Your task to perform on an android device: change text size in settings app Image 0: 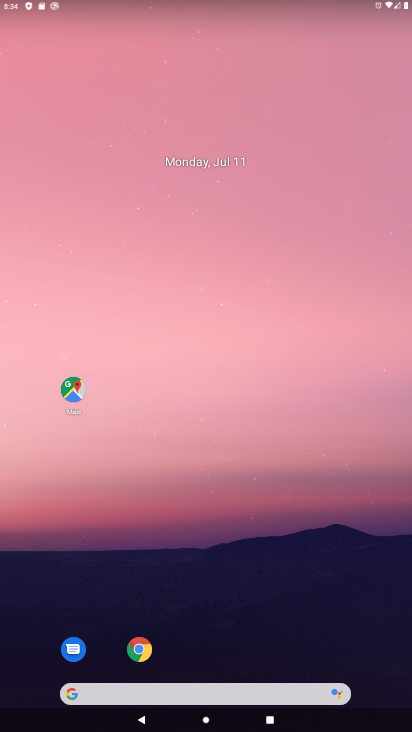
Step 0: drag from (211, 691) to (400, 71)
Your task to perform on an android device: change text size in settings app Image 1: 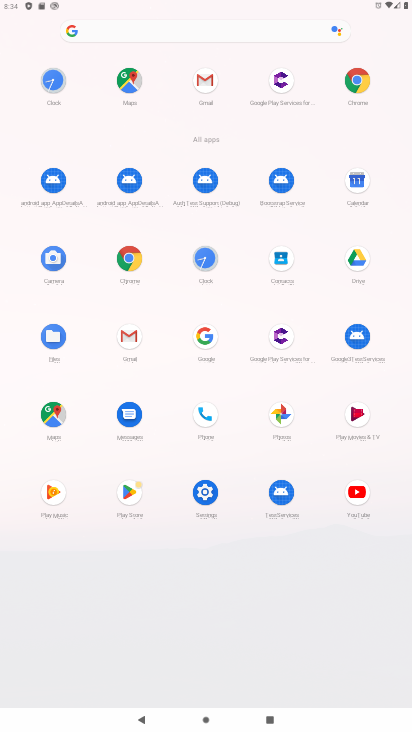
Step 1: click (205, 494)
Your task to perform on an android device: change text size in settings app Image 2: 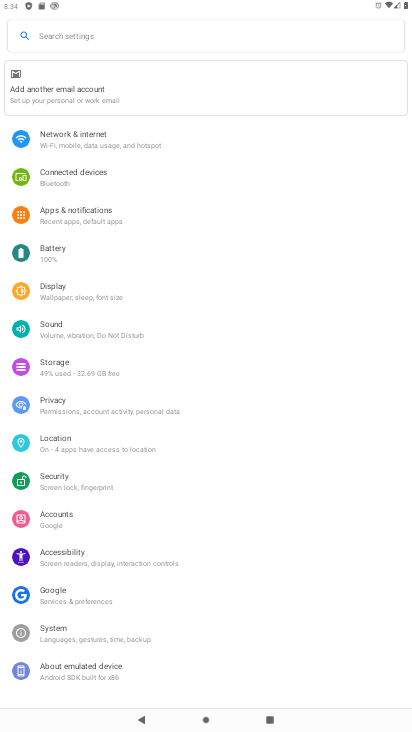
Step 2: click (68, 558)
Your task to perform on an android device: change text size in settings app Image 3: 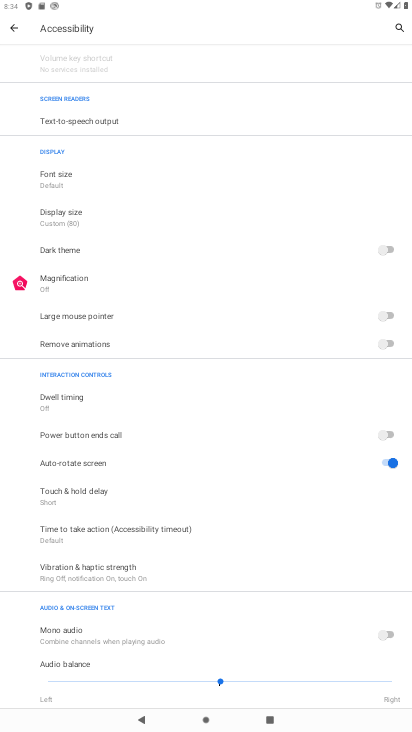
Step 3: click (56, 190)
Your task to perform on an android device: change text size in settings app Image 4: 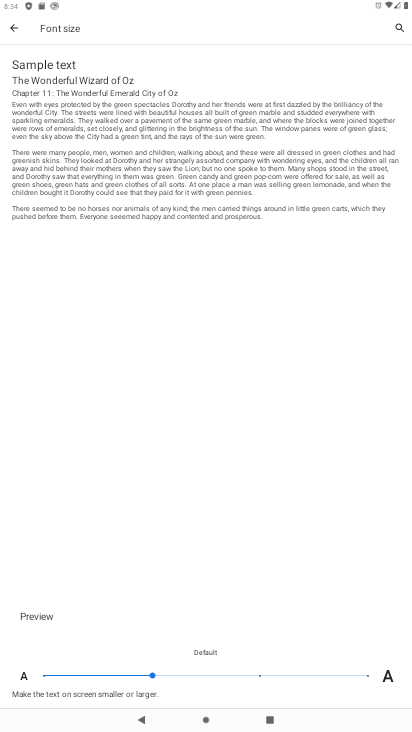
Step 4: click (257, 675)
Your task to perform on an android device: change text size in settings app Image 5: 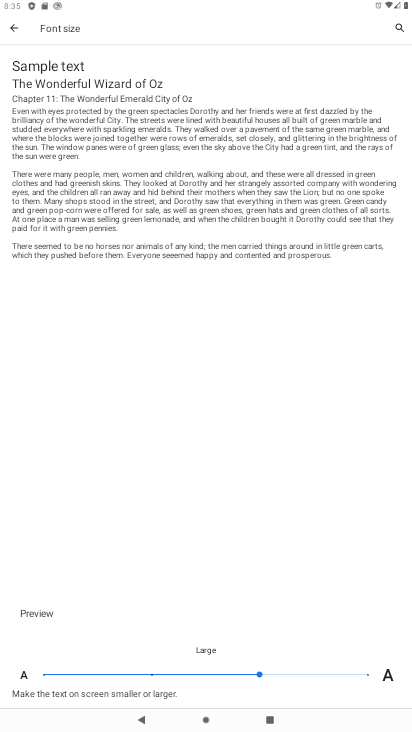
Step 5: task complete